Your task to perform on an android device: Go to network settings Image 0: 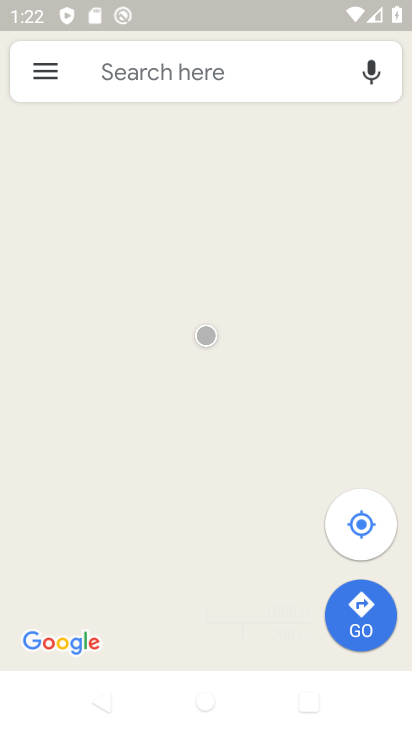
Step 0: press home button
Your task to perform on an android device: Go to network settings Image 1: 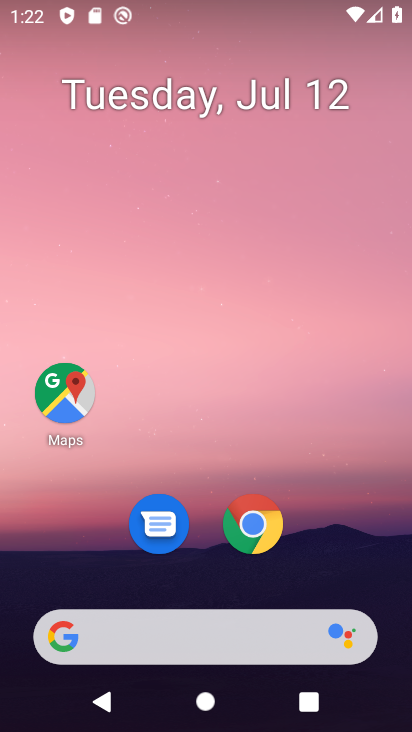
Step 1: drag from (328, 517) to (298, 18)
Your task to perform on an android device: Go to network settings Image 2: 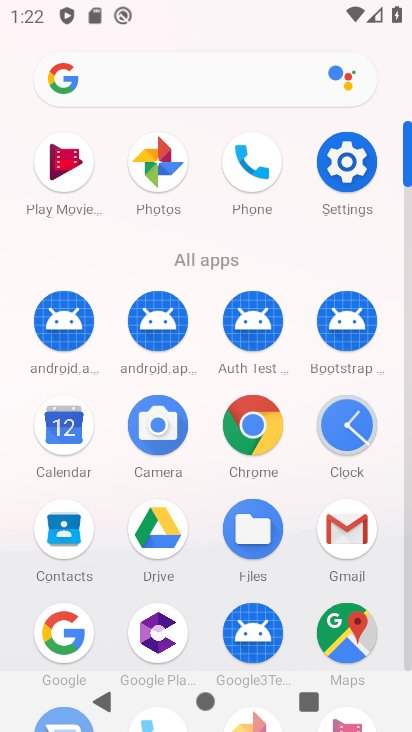
Step 2: click (337, 161)
Your task to perform on an android device: Go to network settings Image 3: 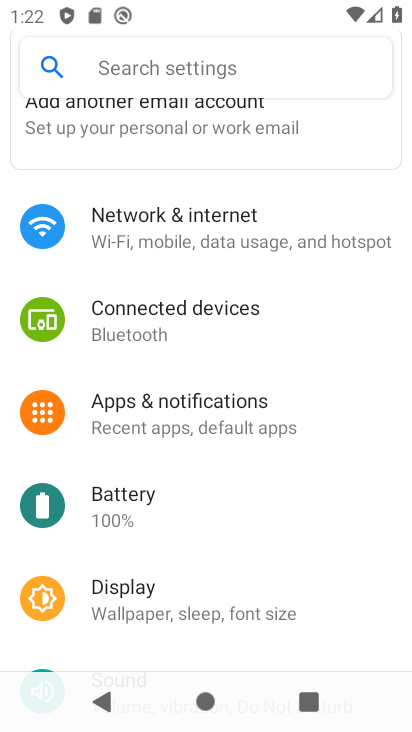
Step 3: click (260, 246)
Your task to perform on an android device: Go to network settings Image 4: 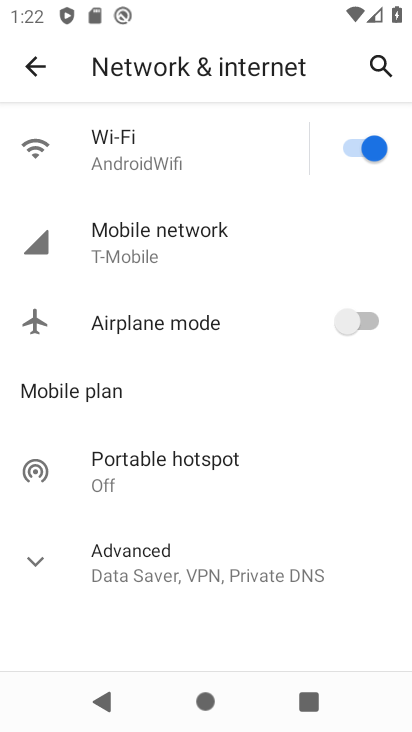
Step 4: task complete